Your task to perform on an android device: toggle wifi Image 0: 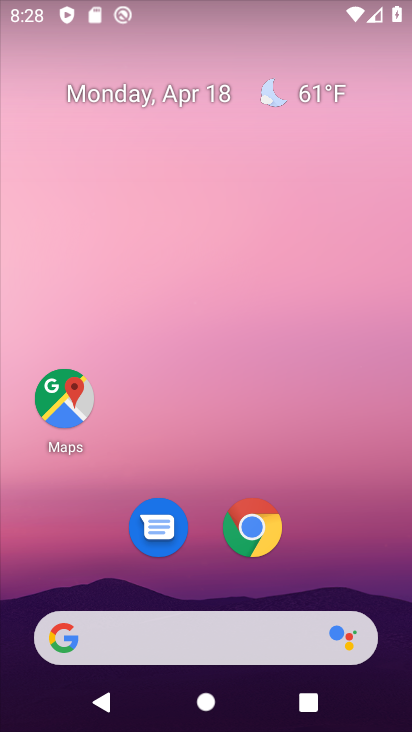
Step 0: drag from (255, 14) to (212, 277)
Your task to perform on an android device: toggle wifi Image 1: 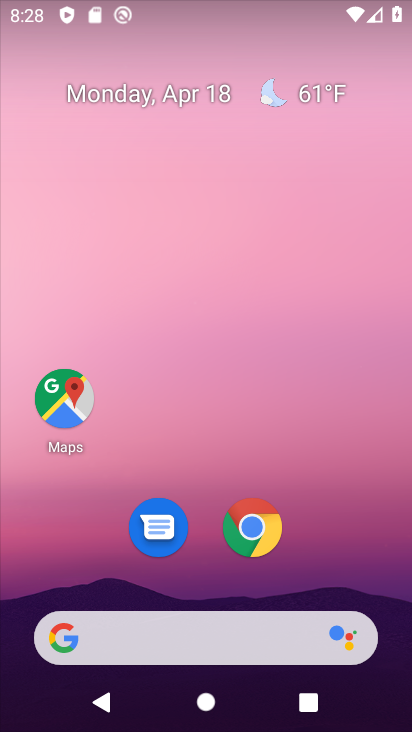
Step 1: drag from (151, 14) to (102, 240)
Your task to perform on an android device: toggle wifi Image 2: 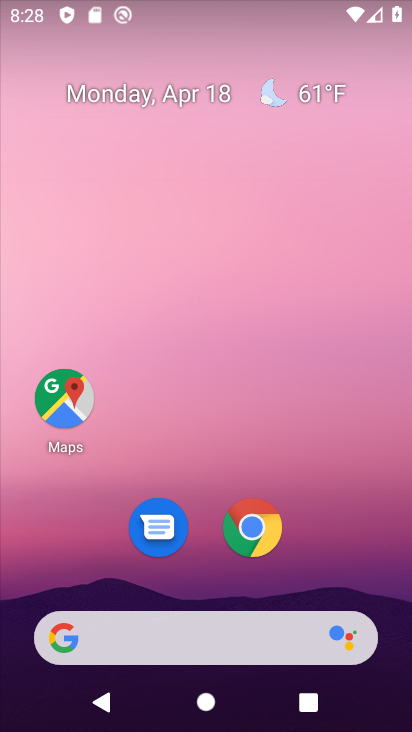
Step 2: drag from (240, 14) to (213, 287)
Your task to perform on an android device: toggle wifi Image 3: 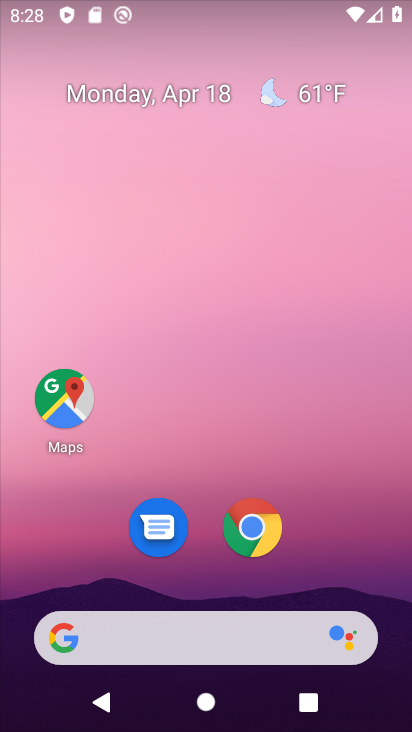
Step 3: click (213, 287)
Your task to perform on an android device: toggle wifi Image 4: 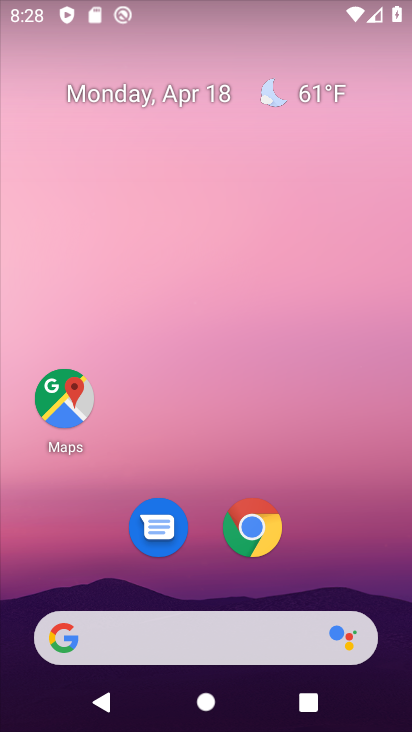
Step 4: drag from (238, 11) to (159, 391)
Your task to perform on an android device: toggle wifi Image 5: 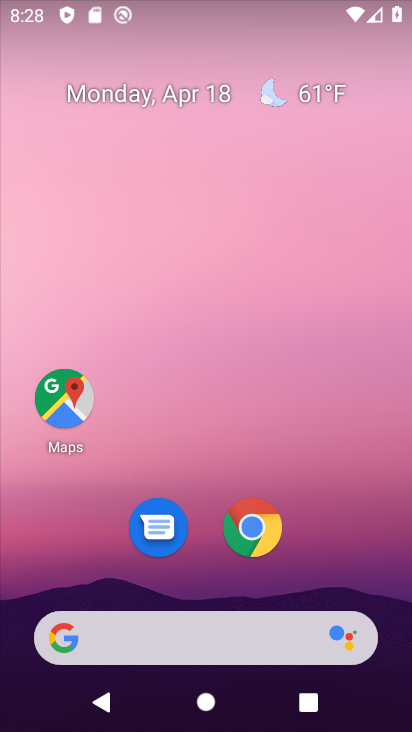
Step 5: drag from (284, 9) to (293, 311)
Your task to perform on an android device: toggle wifi Image 6: 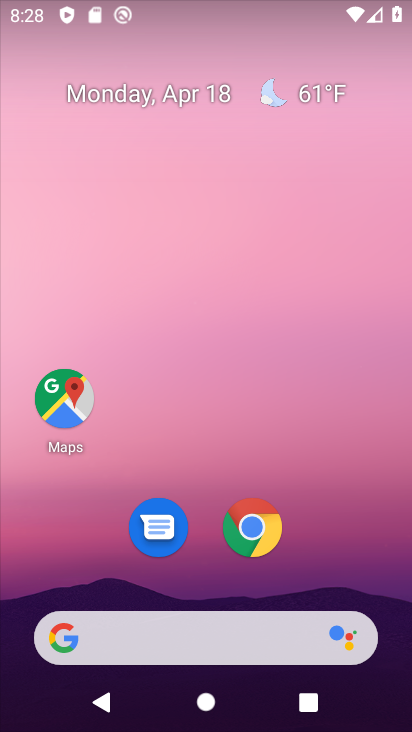
Step 6: drag from (261, 14) to (215, 567)
Your task to perform on an android device: toggle wifi Image 7: 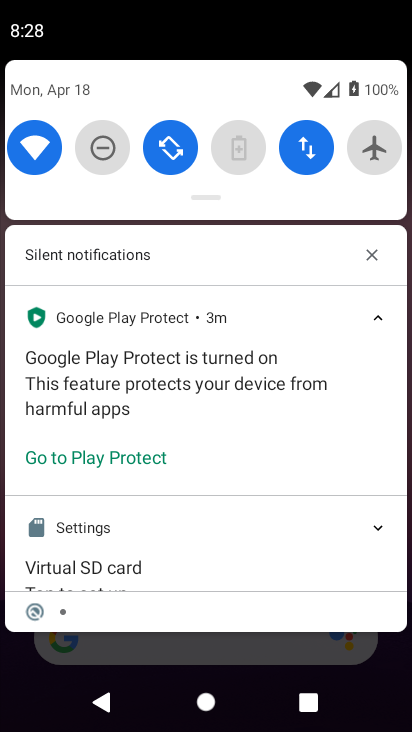
Step 7: click (15, 147)
Your task to perform on an android device: toggle wifi Image 8: 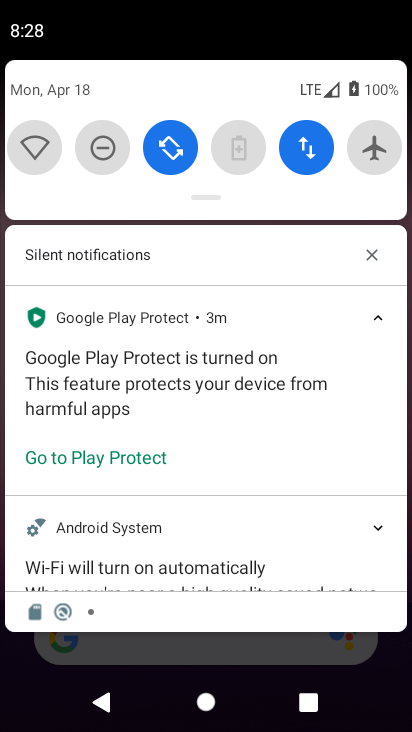
Step 8: click (28, 148)
Your task to perform on an android device: toggle wifi Image 9: 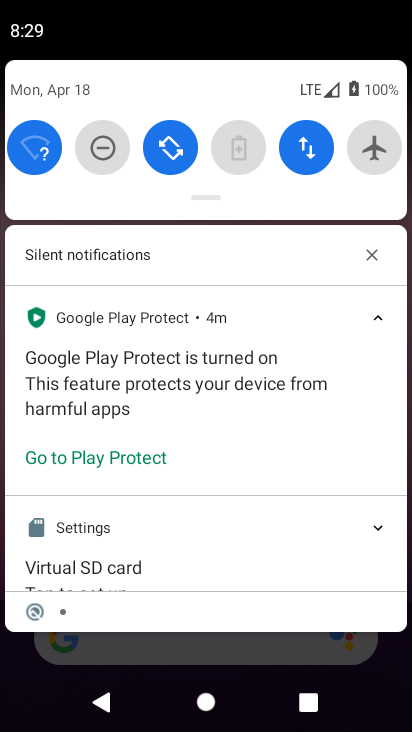
Step 9: click (28, 148)
Your task to perform on an android device: toggle wifi Image 10: 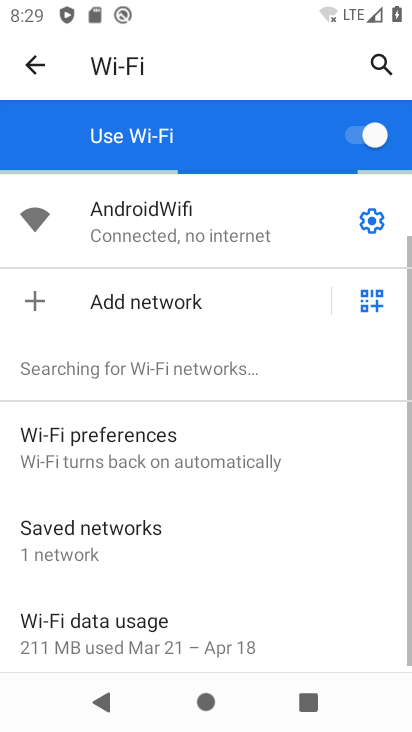
Step 10: click (374, 146)
Your task to perform on an android device: toggle wifi Image 11: 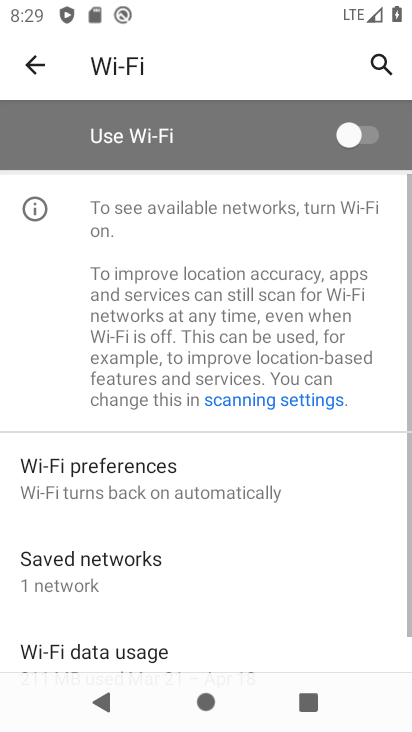
Step 11: click (374, 146)
Your task to perform on an android device: toggle wifi Image 12: 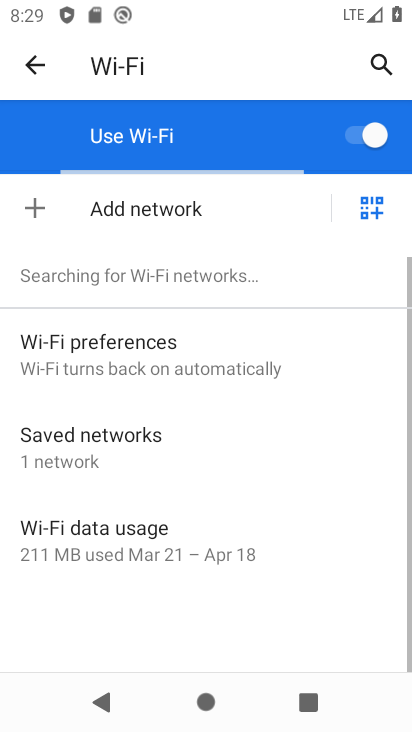
Step 12: task complete